Your task to perform on an android device: Go to accessibility settings Image 0: 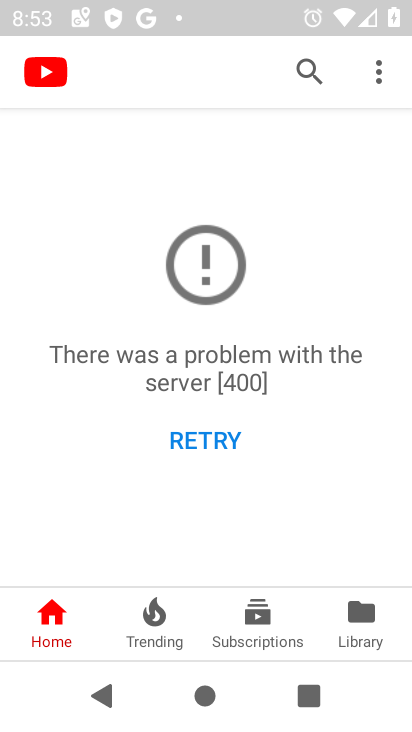
Step 0: press home button
Your task to perform on an android device: Go to accessibility settings Image 1: 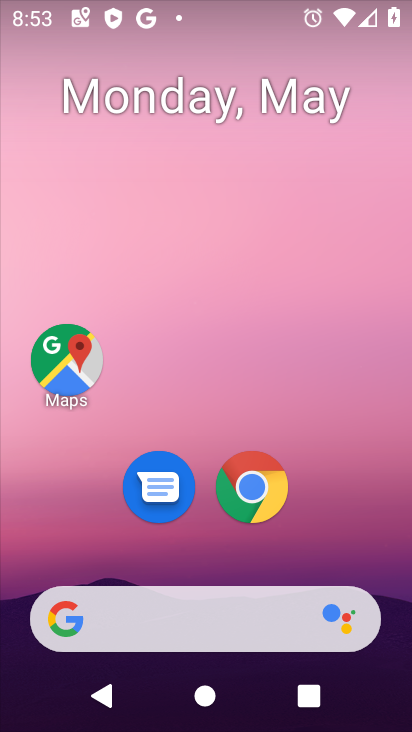
Step 1: drag from (208, 557) to (199, 103)
Your task to perform on an android device: Go to accessibility settings Image 2: 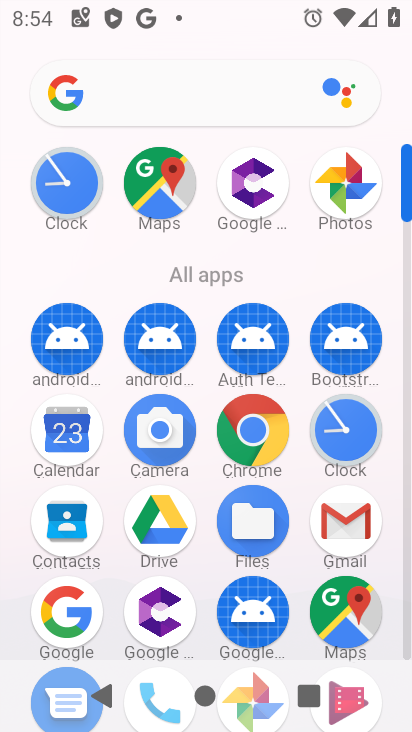
Step 2: drag from (204, 549) to (207, 167)
Your task to perform on an android device: Go to accessibility settings Image 3: 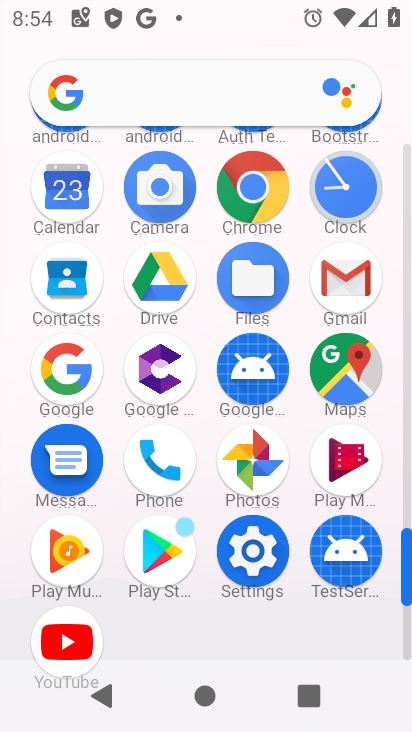
Step 3: click (255, 542)
Your task to perform on an android device: Go to accessibility settings Image 4: 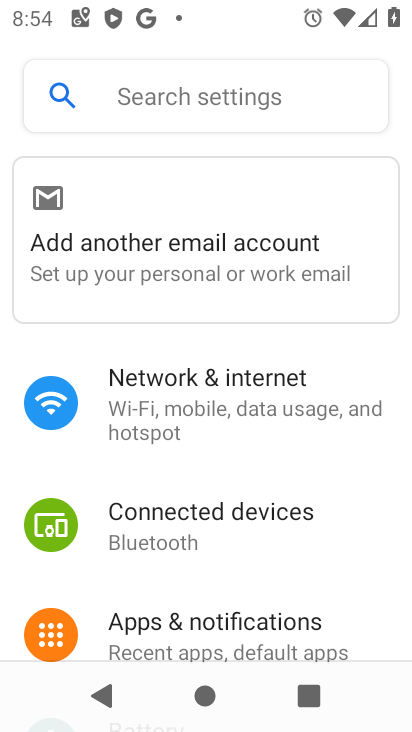
Step 4: drag from (255, 542) to (274, 159)
Your task to perform on an android device: Go to accessibility settings Image 5: 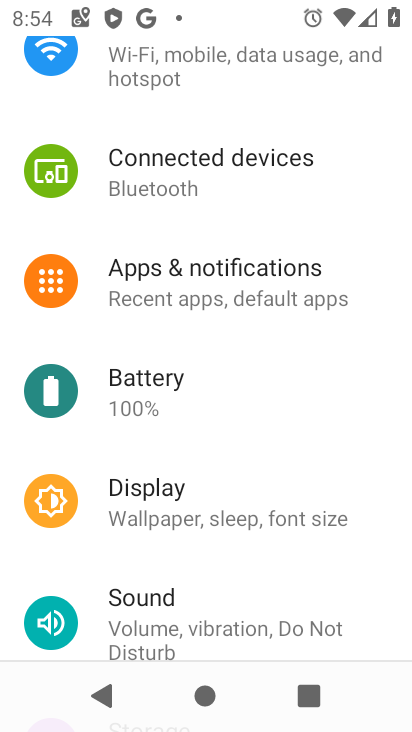
Step 5: drag from (164, 544) to (148, 138)
Your task to perform on an android device: Go to accessibility settings Image 6: 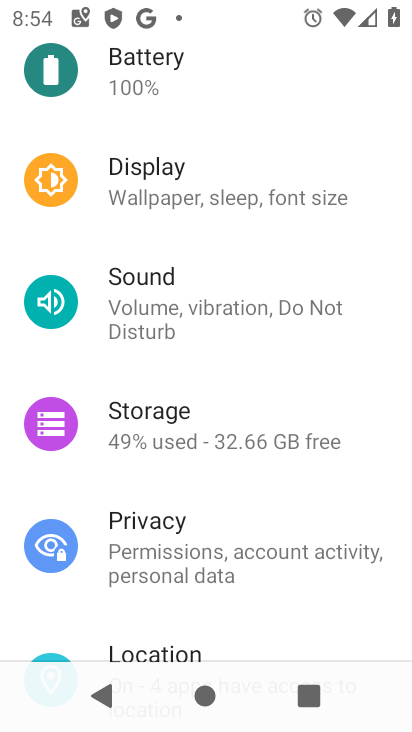
Step 6: drag from (98, 612) to (209, 160)
Your task to perform on an android device: Go to accessibility settings Image 7: 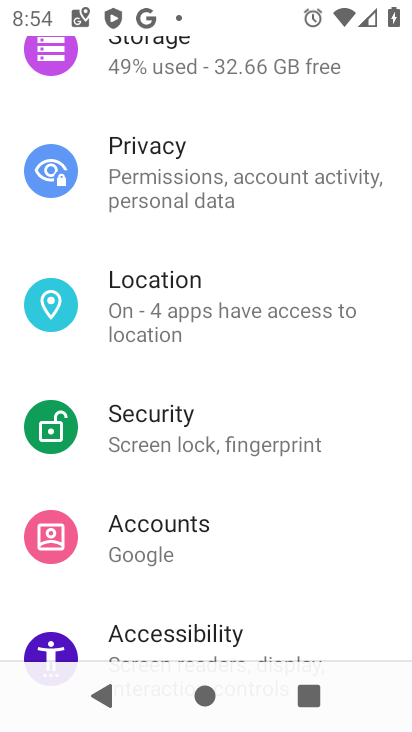
Step 7: click (191, 621)
Your task to perform on an android device: Go to accessibility settings Image 8: 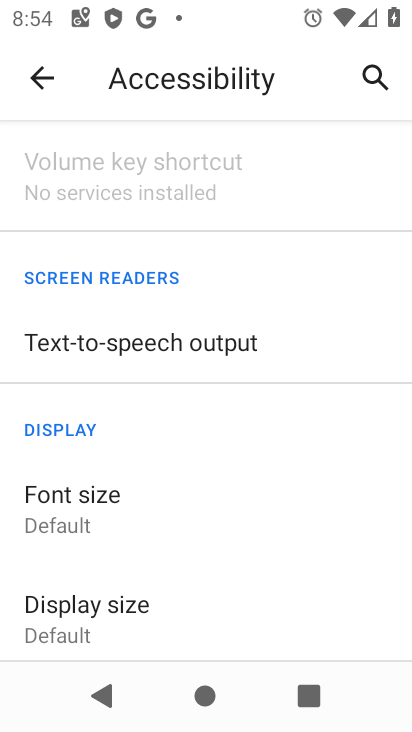
Step 8: task complete